Your task to perform on an android device: What is the recent news? Image 0: 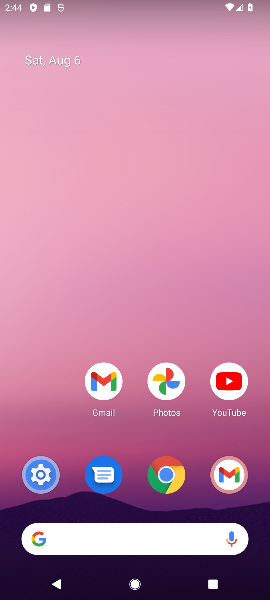
Step 0: click (77, 540)
Your task to perform on an android device: What is the recent news? Image 1: 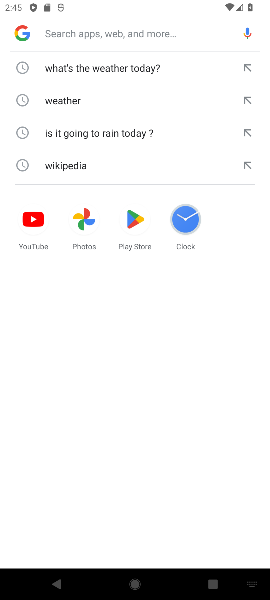
Step 1: type "What is the recent news?"
Your task to perform on an android device: What is the recent news? Image 2: 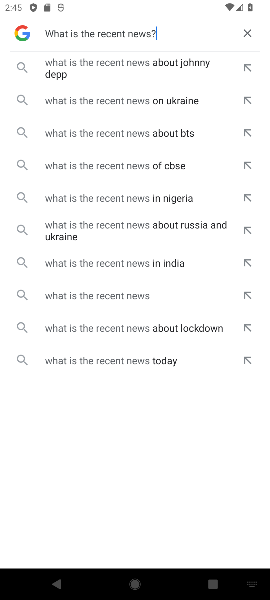
Step 2: type ""
Your task to perform on an android device: What is the recent news? Image 3: 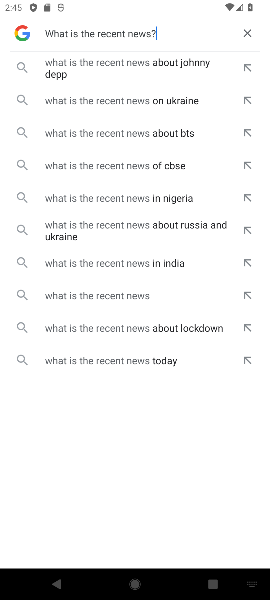
Step 3: type ""
Your task to perform on an android device: What is the recent news? Image 4: 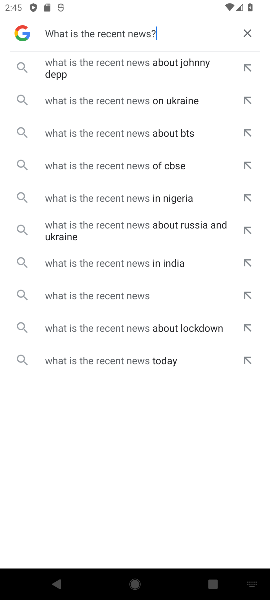
Step 4: task complete